Your task to perform on an android device: find which apps use the phone's location Image 0: 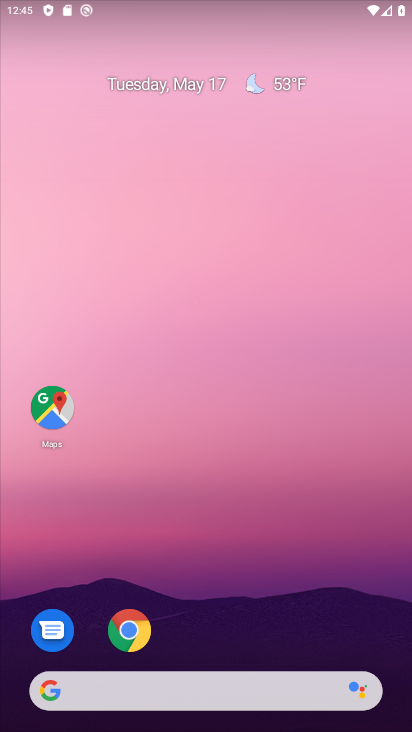
Step 0: drag from (217, 654) to (287, 117)
Your task to perform on an android device: find which apps use the phone's location Image 1: 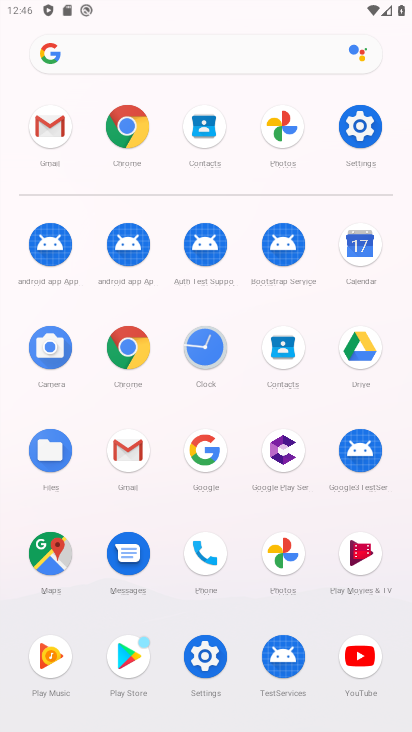
Step 1: click (365, 150)
Your task to perform on an android device: find which apps use the phone's location Image 2: 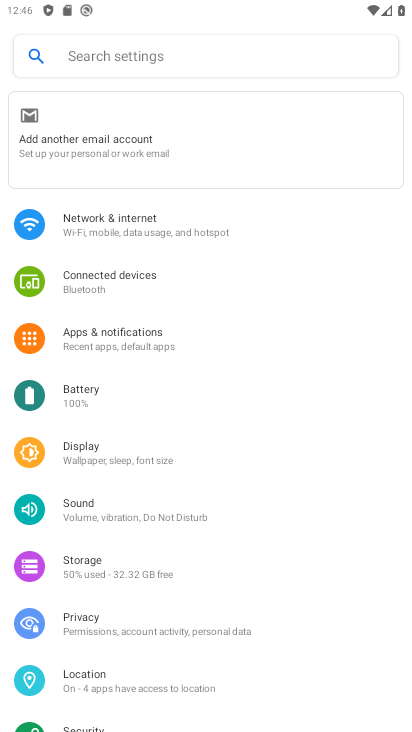
Step 2: click (136, 679)
Your task to perform on an android device: find which apps use the phone's location Image 3: 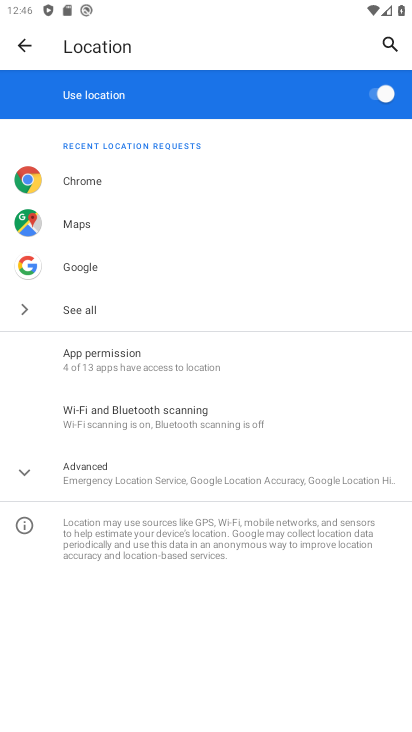
Step 3: click (139, 470)
Your task to perform on an android device: find which apps use the phone's location Image 4: 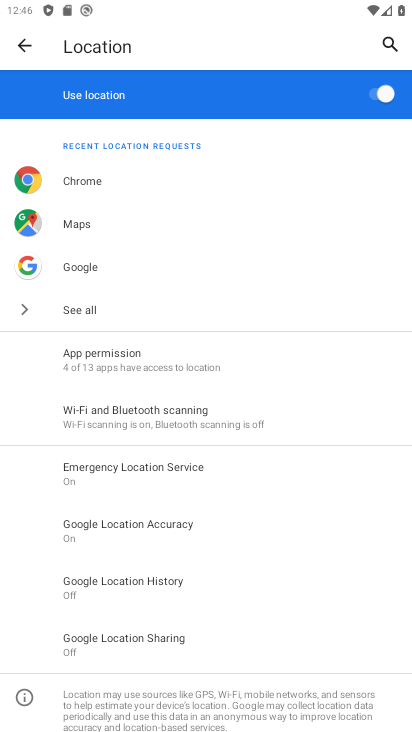
Step 4: drag from (134, 452) to (124, 536)
Your task to perform on an android device: find which apps use the phone's location Image 5: 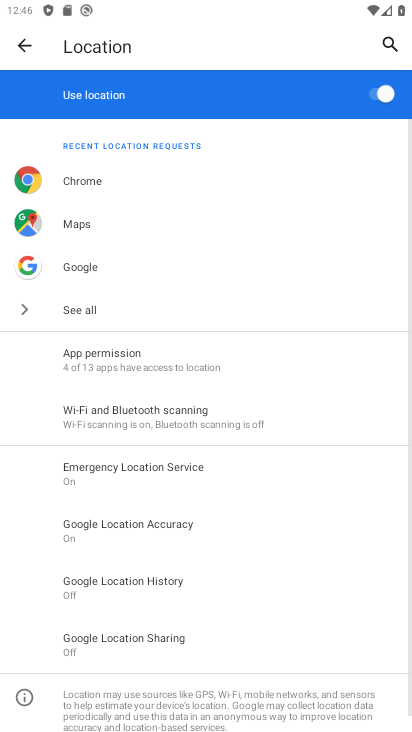
Step 5: click (187, 364)
Your task to perform on an android device: find which apps use the phone's location Image 6: 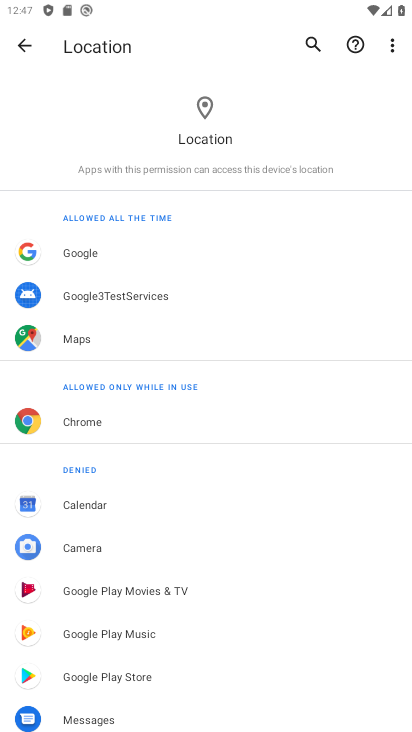
Step 6: task complete